Your task to perform on an android device: Search for "razer kraken" on ebay, select the first entry, and add it to the cart. Image 0: 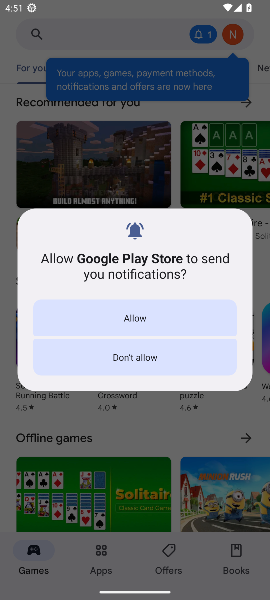
Step 0: click (173, 367)
Your task to perform on an android device: Search for "razer kraken" on ebay, select the first entry, and add it to the cart. Image 1: 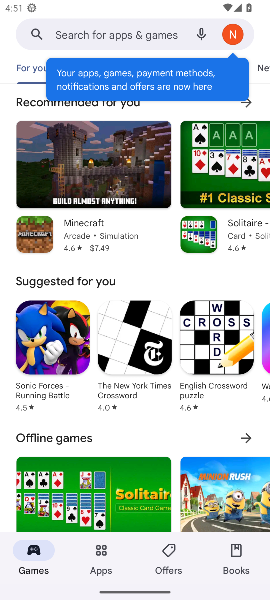
Step 1: press home button
Your task to perform on an android device: Search for "razer kraken" on ebay, select the first entry, and add it to the cart. Image 2: 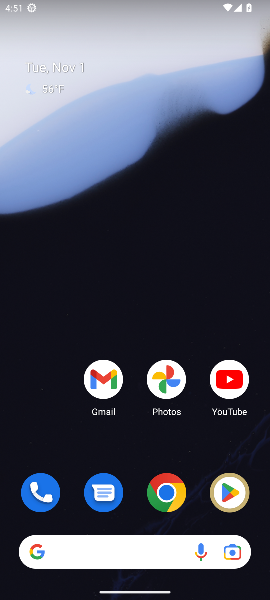
Step 2: drag from (138, 594) to (142, 210)
Your task to perform on an android device: Search for "razer kraken" on ebay, select the first entry, and add it to the cart. Image 3: 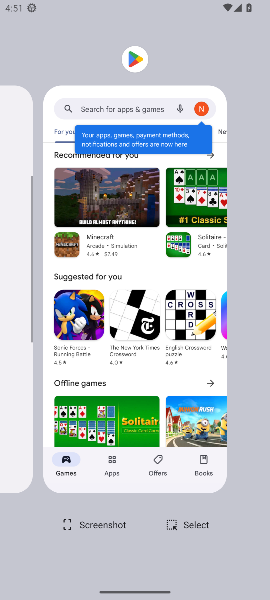
Step 3: drag from (50, 308) to (229, 294)
Your task to perform on an android device: Search for "razer kraken" on ebay, select the first entry, and add it to the cart. Image 4: 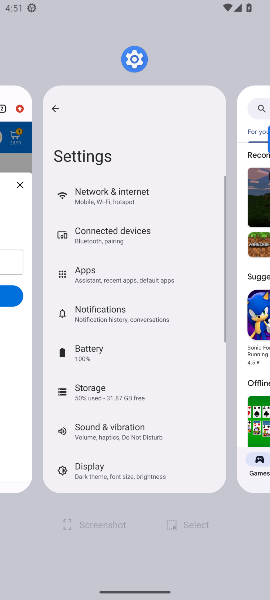
Step 4: drag from (39, 290) to (268, 290)
Your task to perform on an android device: Search for "razer kraken" on ebay, select the first entry, and add it to the cart. Image 5: 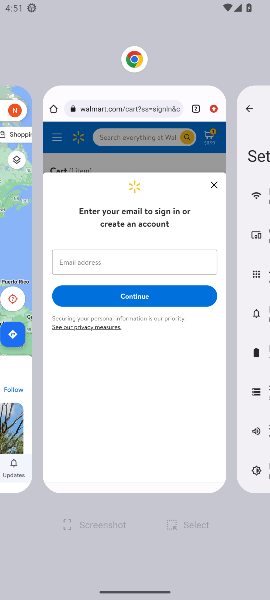
Step 5: drag from (10, 293) to (247, 296)
Your task to perform on an android device: Search for "razer kraken" on ebay, select the first entry, and add it to the cart. Image 6: 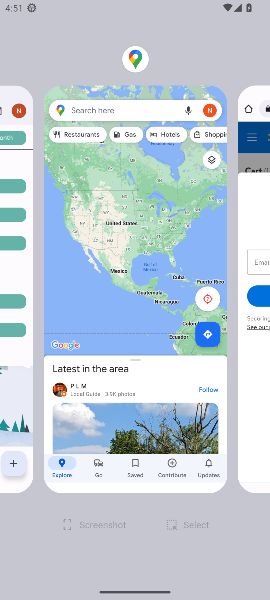
Step 6: drag from (28, 304) to (269, 308)
Your task to perform on an android device: Search for "razer kraken" on ebay, select the first entry, and add it to the cart. Image 7: 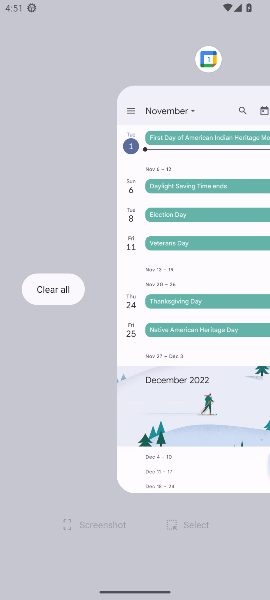
Step 7: drag from (27, 308) to (139, 307)
Your task to perform on an android device: Search for "razer kraken" on ebay, select the first entry, and add it to the cart. Image 8: 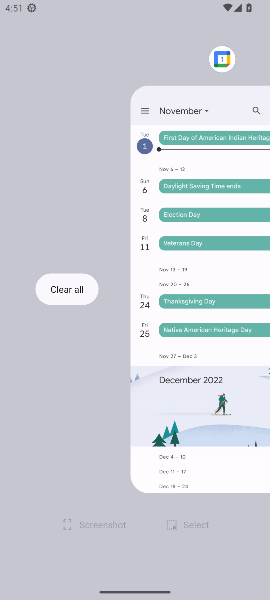
Step 8: click (56, 294)
Your task to perform on an android device: Search for "razer kraken" on ebay, select the first entry, and add it to the cart. Image 9: 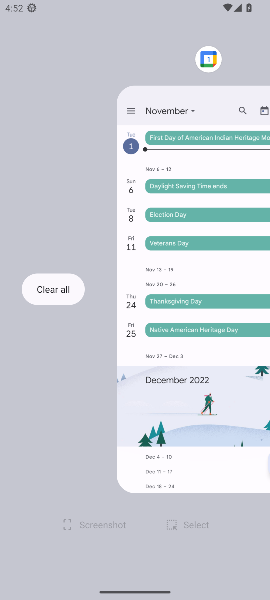
Step 9: click (52, 290)
Your task to perform on an android device: Search for "razer kraken" on ebay, select the first entry, and add it to the cart. Image 10: 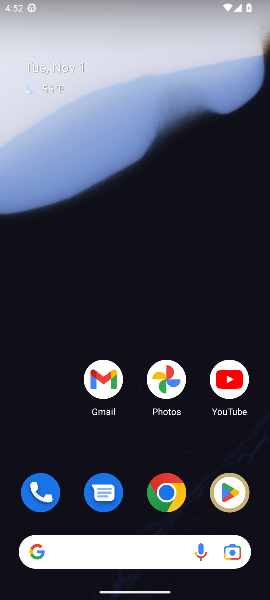
Step 10: click (162, 505)
Your task to perform on an android device: Search for "razer kraken" on ebay, select the first entry, and add it to the cart. Image 11: 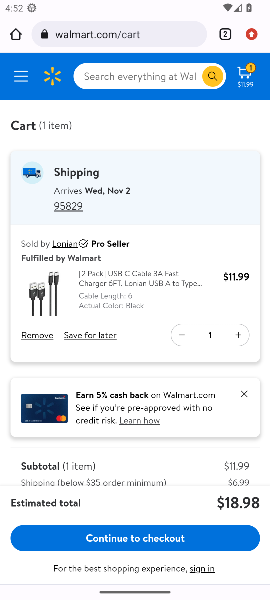
Step 11: click (120, 77)
Your task to perform on an android device: Search for "razer kraken" on ebay, select the first entry, and add it to the cart. Image 12: 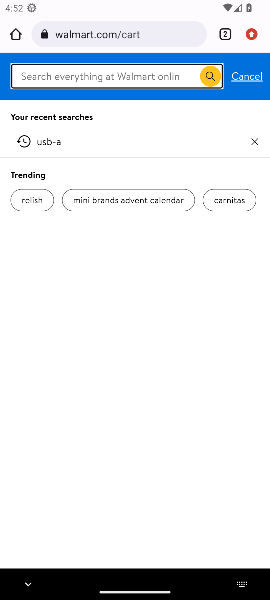
Step 12: type "razer kraken"
Your task to perform on an android device: Search for "razer kraken" on ebay, select the first entry, and add it to the cart. Image 13: 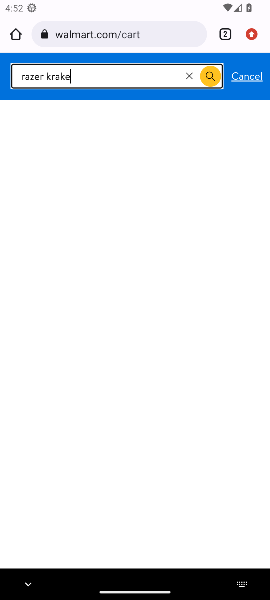
Step 13: type ""
Your task to perform on an android device: Search for "razer kraken" on ebay, select the first entry, and add it to the cart. Image 14: 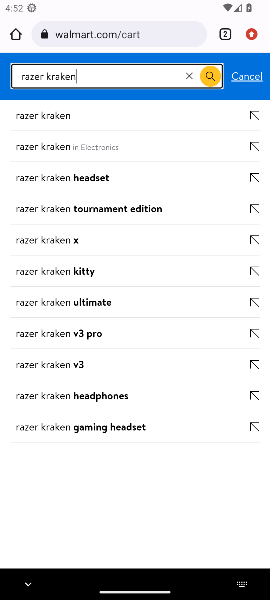
Step 14: click (107, 110)
Your task to perform on an android device: Search for "razer kraken" on ebay, select the first entry, and add it to the cart. Image 15: 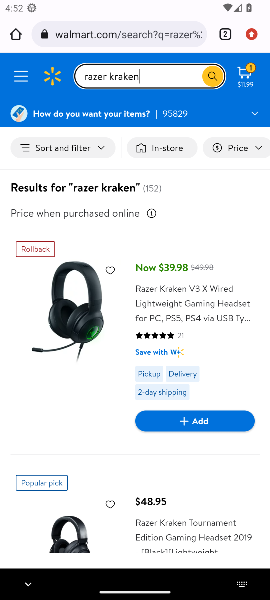
Step 15: click (189, 289)
Your task to perform on an android device: Search for "razer kraken" on ebay, select the first entry, and add it to the cart. Image 16: 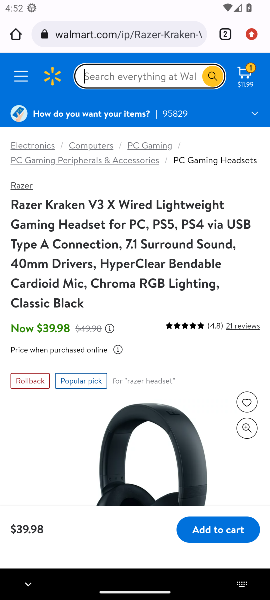
Step 16: drag from (70, 387) to (105, 222)
Your task to perform on an android device: Search for "razer kraken" on ebay, select the first entry, and add it to the cart. Image 17: 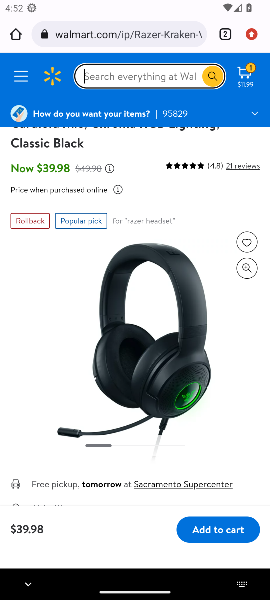
Step 17: drag from (182, 439) to (181, 279)
Your task to perform on an android device: Search for "razer kraken" on ebay, select the first entry, and add it to the cart. Image 18: 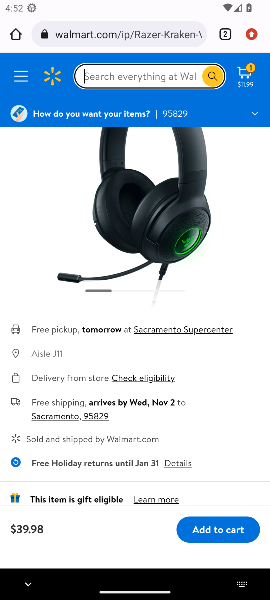
Step 18: drag from (187, 305) to (63, 271)
Your task to perform on an android device: Search for "razer kraken" on ebay, select the first entry, and add it to the cart. Image 19: 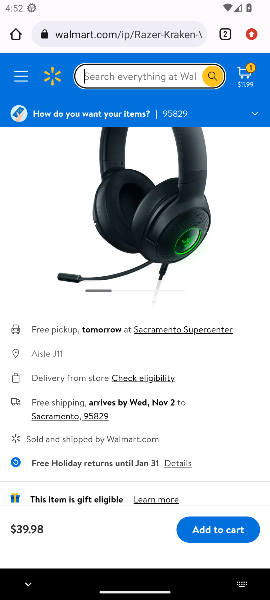
Step 19: drag from (108, 224) to (27, 230)
Your task to perform on an android device: Search for "razer kraken" on ebay, select the first entry, and add it to the cart. Image 20: 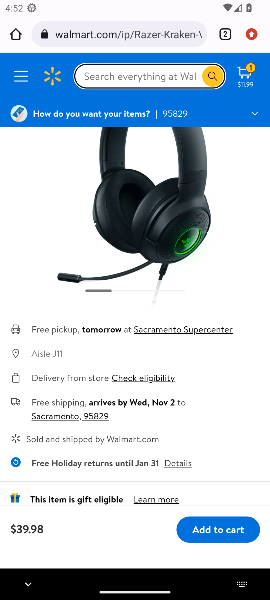
Step 20: drag from (213, 207) to (40, 195)
Your task to perform on an android device: Search for "razer kraken" on ebay, select the first entry, and add it to the cart. Image 21: 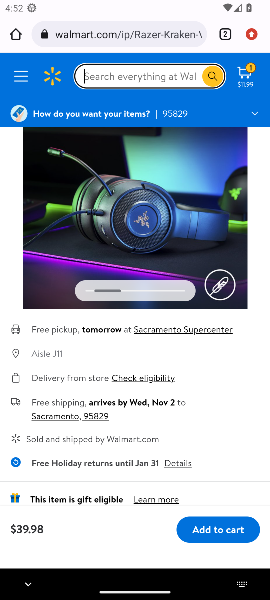
Step 21: drag from (240, 193) to (15, 190)
Your task to perform on an android device: Search for "razer kraken" on ebay, select the first entry, and add it to the cart. Image 22: 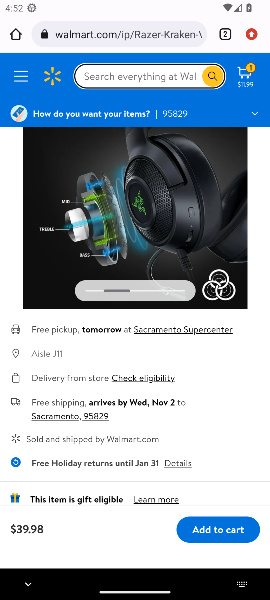
Step 22: drag from (173, 207) to (0, 197)
Your task to perform on an android device: Search for "razer kraken" on ebay, select the first entry, and add it to the cart. Image 23: 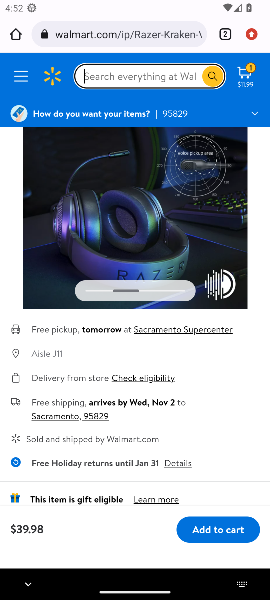
Step 23: drag from (181, 199) to (0, 178)
Your task to perform on an android device: Search for "razer kraken" on ebay, select the first entry, and add it to the cart. Image 24: 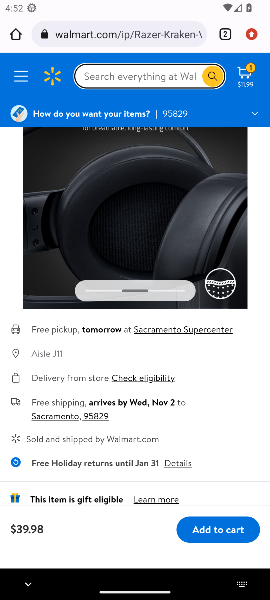
Step 24: drag from (180, 210) to (3, 199)
Your task to perform on an android device: Search for "razer kraken" on ebay, select the first entry, and add it to the cart. Image 25: 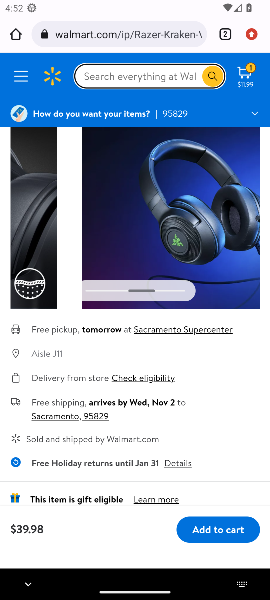
Step 25: drag from (180, 201) to (1, 175)
Your task to perform on an android device: Search for "razer kraken" on ebay, select the first entry, and add it to the cart. Image 26: 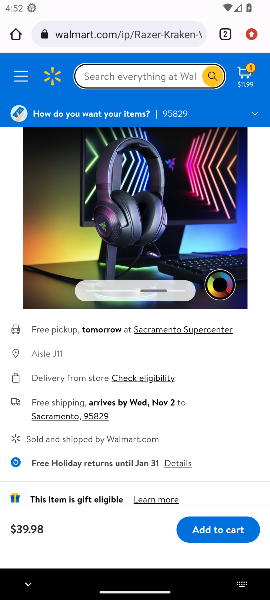
Step 26: drag from (219, 208) to (12, 235)
Your task to perform on an android device: Search for "razer kraken" on ebay, select the first entry, and add it to the cart. Image 27: 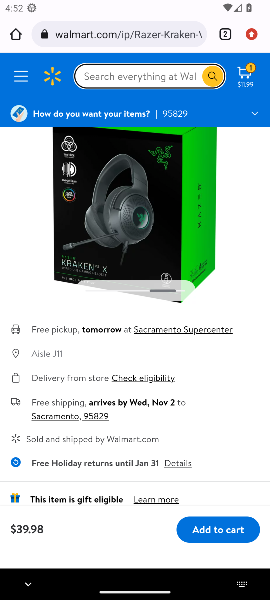
Step 27: click (243, 520)
Your task to perform on an android device: Search for "razer kraken" on ebay, select the first entry, and add it to the cart. Image 28: 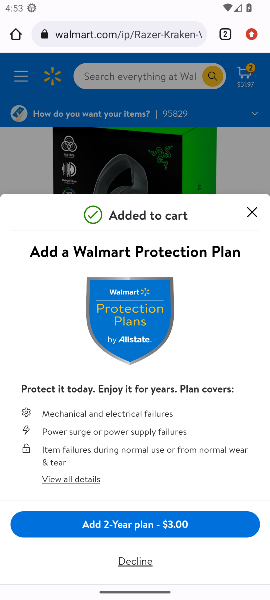
Step 28: click (138, 556)
Your task to perform on an android device: Search for "razer kraken" on ebay, select the first entry, and add it to the cart. Image 29: 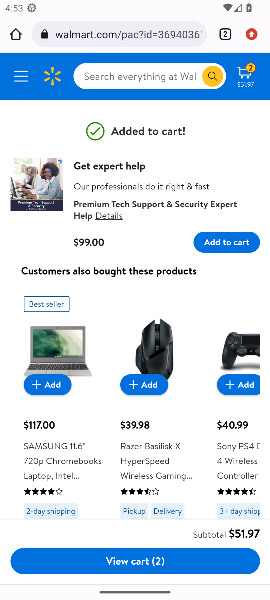
Step 29: click (242, 91)
Your task to perform on an android device: Search for "razer kraken" on ebay, select the first entry, and add it to the cart. Image 30: 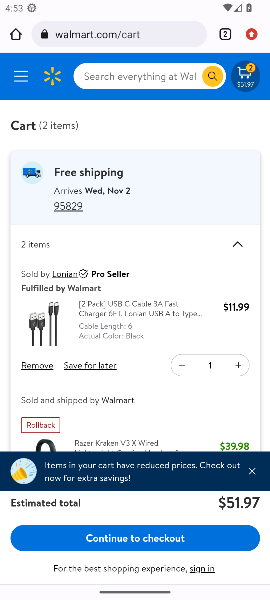
Step 30: click (180, 368)
Your task to perform on an android device: Search for "razer kraken" on ebay, select the first entry, and add it to the cart. Image 31: 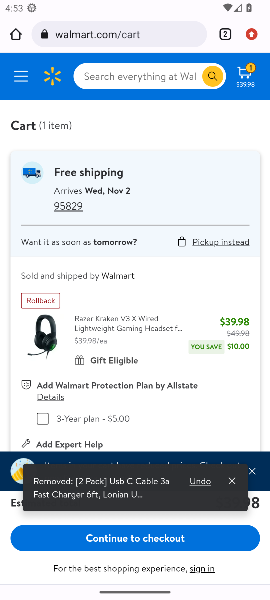
Step 31: click (153, 532)
Your task to perform on an android device: Search for "razer kraken" on ebay, select the first entry, and add it to the cart. Image 32: 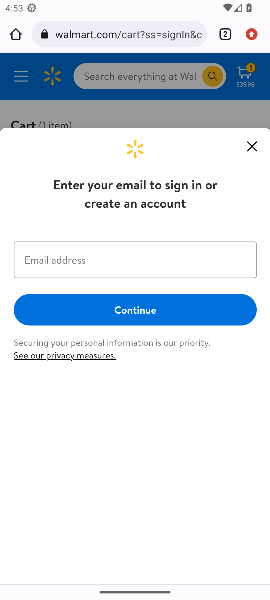
Step 32: click (247, 147)
Your task to perform on an android device: Search for "razer kraken" on ebay, select the first entry, and add it to the cart. Image 33: 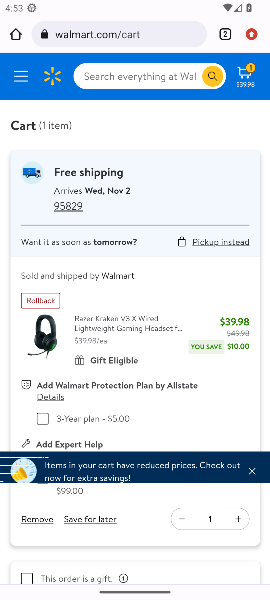
Step 33: task complete